Your task to perform on an android device: turn on the 24-hour format for clock Image 0: 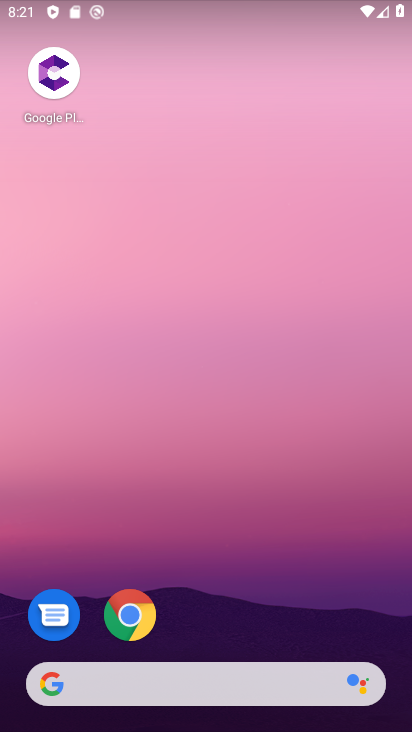
Step 0: drag from (207, 670) to (250, 0)
Your task to perform on an android device: turn on the 24-hour format for clock Image 1: 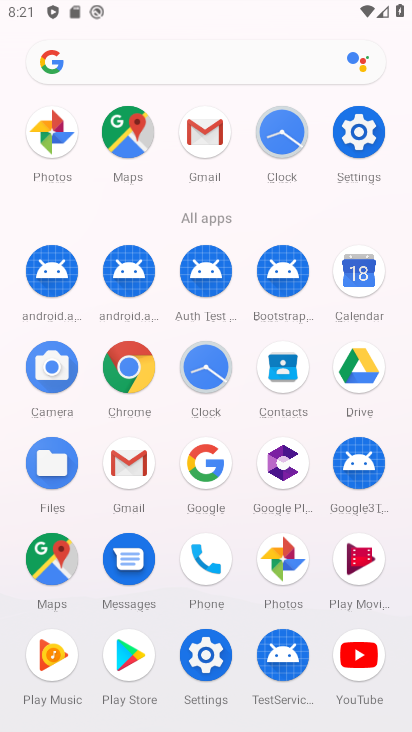
Step 1: click (372, 137)
Your task to perform on an android device: turn on the 24-hour format for clock Image 2: 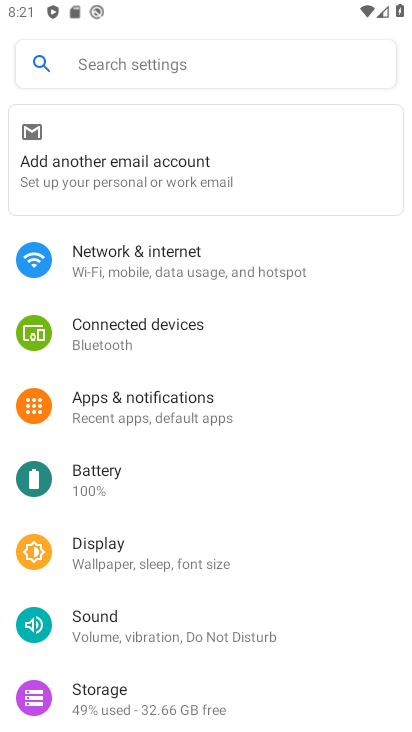
Step 2: drag from (158, 571) to (170, 23)
Your task to perform on an android device: turn on the 24-hour format for clock Image 3: 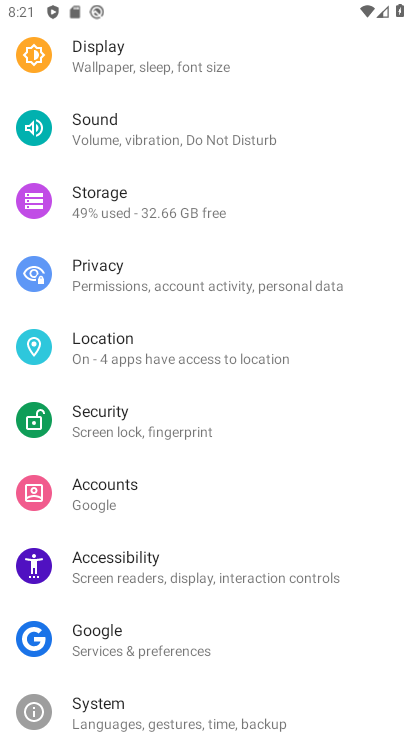
Step 3: drag from (136, 622) to (169, 79)
Your task to perform on an android device: turn on the 24-hour format for clock Image 4: 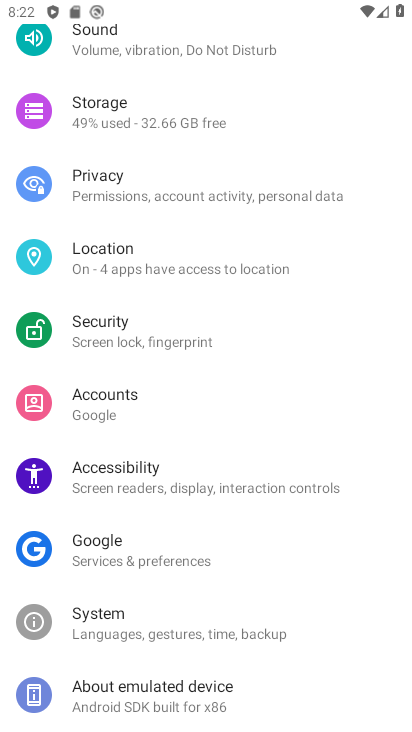
Step 4: click (114, 629)
Your task to perform on an android device: turn on the 24-hour format for clock Image 5: 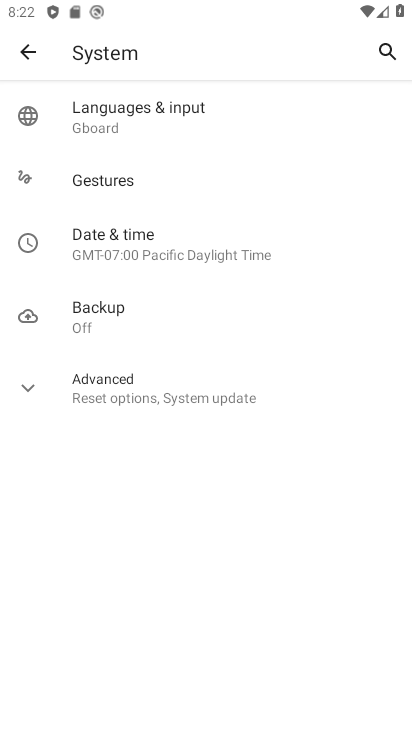
Step 5: click (136, 247)
Your task to perform on an android device: turn on the 24-hour format for clock Image 6: 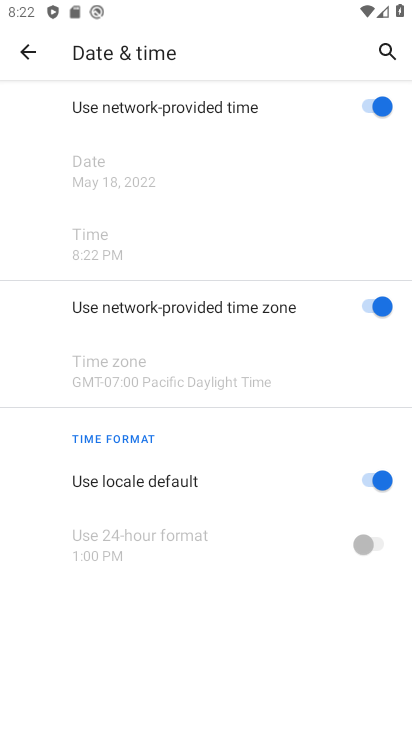
Step 6: click (369, 464)
Your task to perform on an android device: turn on the 24-hour format for clock Image 7: 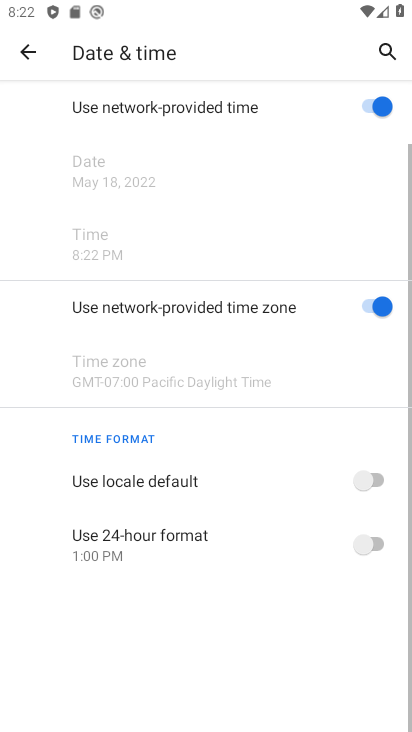
Step 7: click (369, 543)
Your task to perform on an android device: turn on the 24-hour format for clock Image 8: 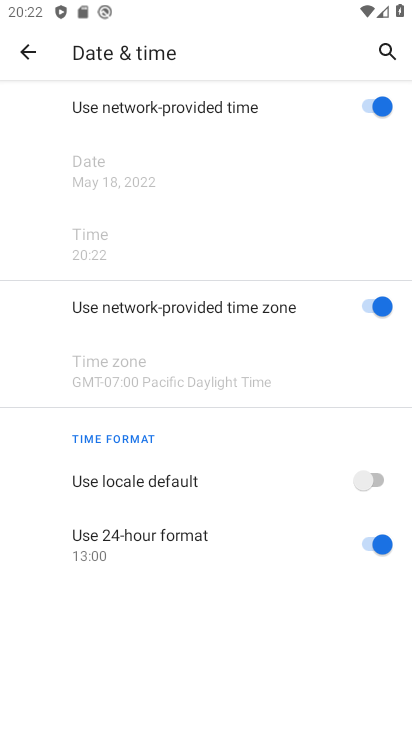
Step 8: task complete